Your task to perform on an android device: toggle location history Image 0: 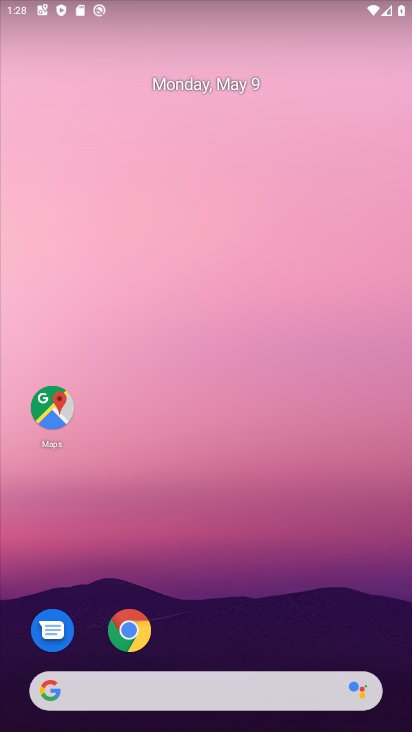
Step 0: drag from (286, 709) to (304, 391)
Your task to perform on an android device: toggle location history Image 1: 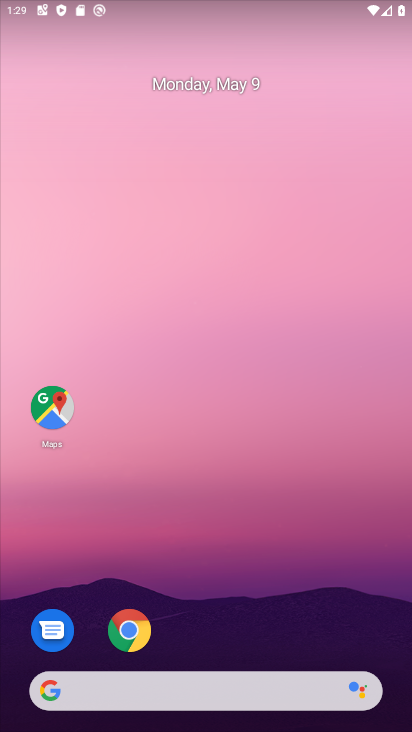
Step 1: drag from (290, 713) to (281, 356)
Your task to perform on an android device: toggle location history Image 2: 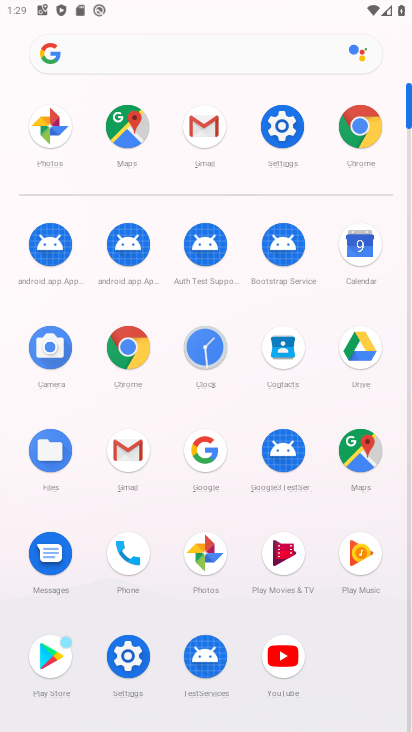
Step 2: click (273, 132)
Your task to perform on an android device: toggle location history Image 3: 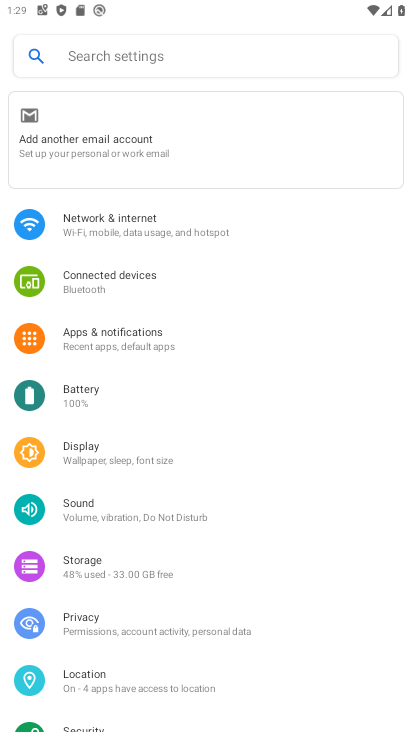
Step 3: click (152, 55)
Your task to perform on an android device: toggle location history Image 4: 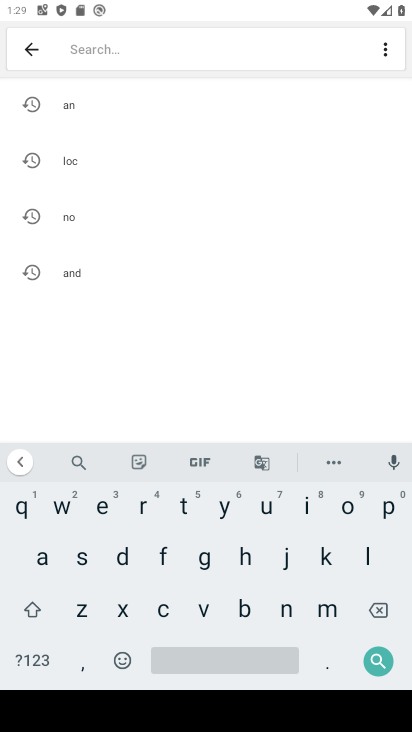
Step 4: click (117, 172)
Your task to perform on an android device: toggle location history Image 5: 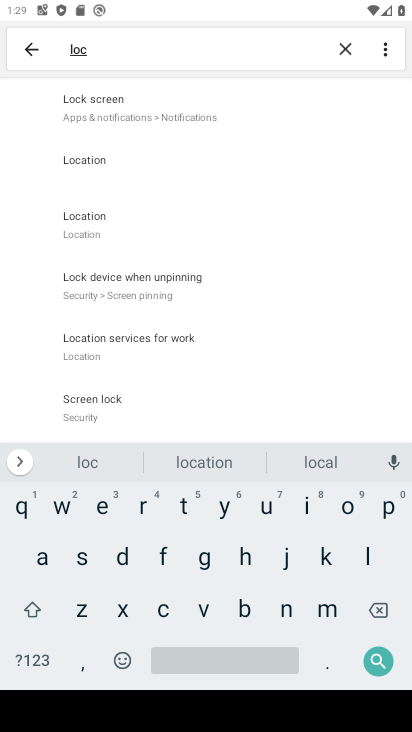
Step 5: click (86, 227)
Your task to perform on an android device: toggle location history Image 6: 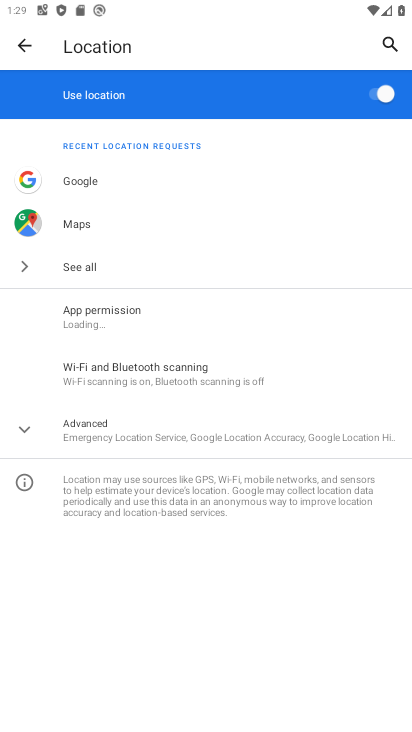
Step 6: click (377, 108)
Your task to perform on an android device: toggle location history Image 7: 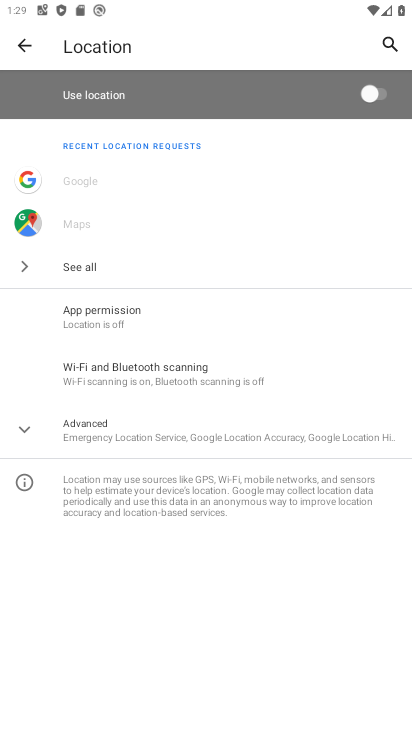
Step 7: click (377, 108)
Your task to perform on an android device: toggle location history Image 8: 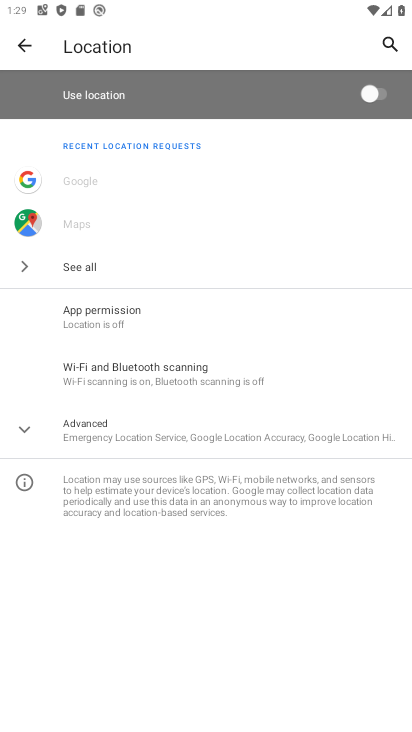
Step 8: click (85, 431)
Your task to perform on an android device: toggle location history Image 9: 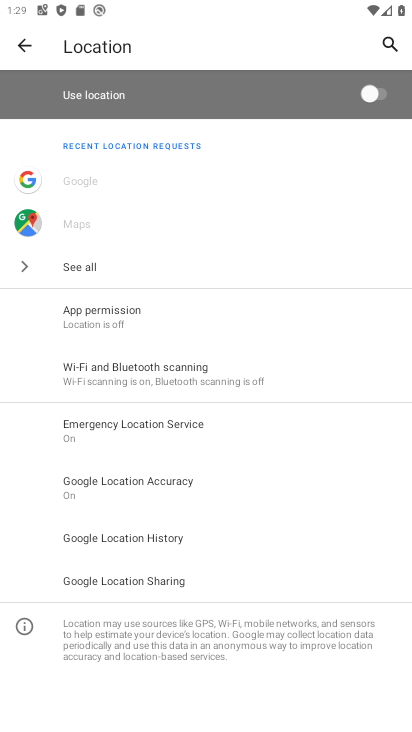
Step 9: click (127, 528)
Your task to perform on an android device: toggle location history Image 10: 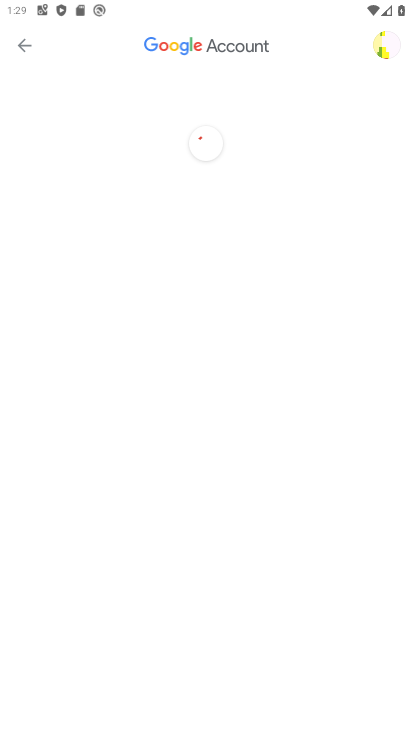
Step 10: task complete